Your task to perform on an android device: What's on my calendar tomorrow? Image 0: 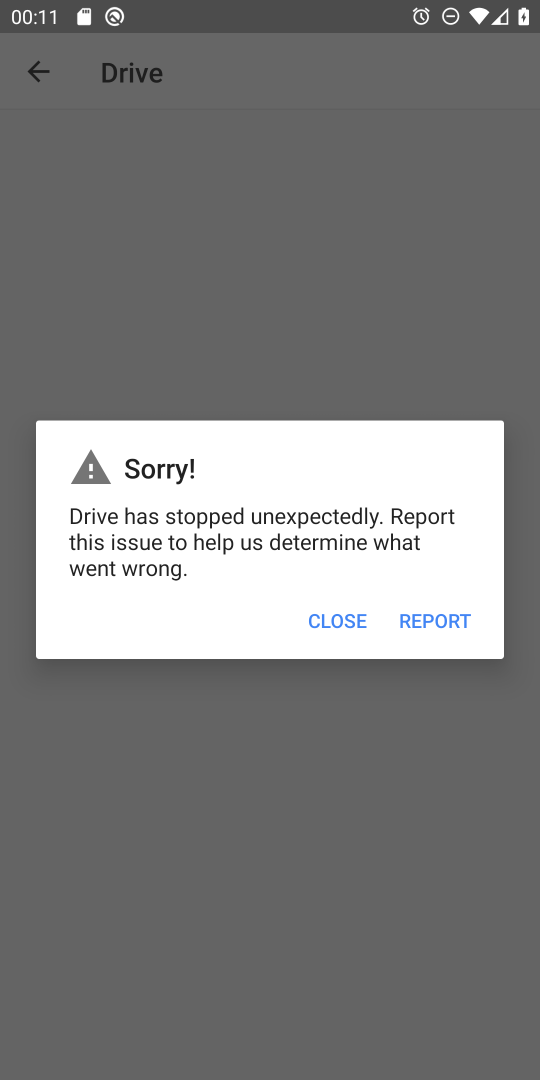
Step 0: press home button
Your task to perform on an android device: What's on my calendar tomorrow? Image 1: 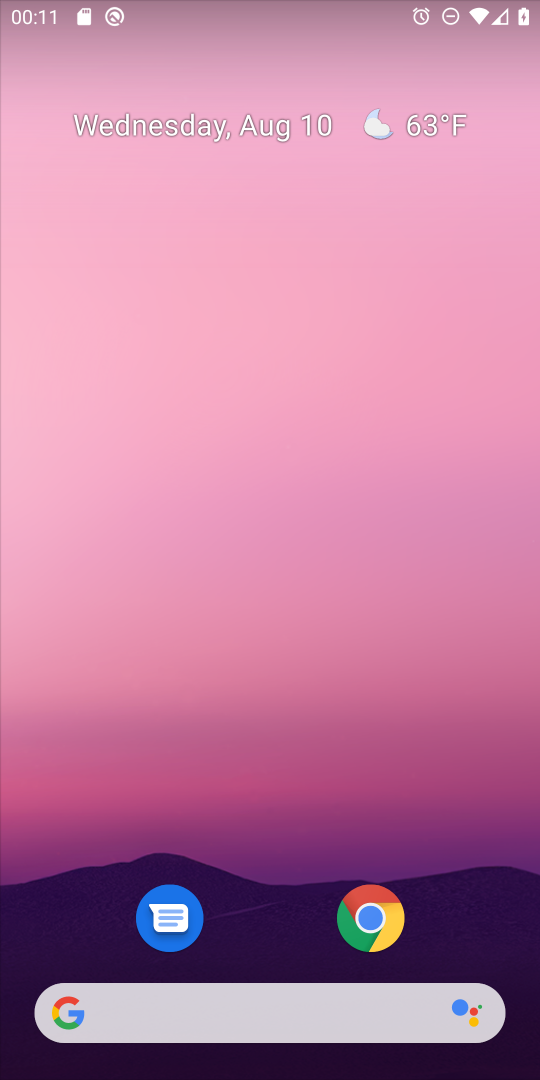
Step 1: drag from (296, 942) to (297, 274)
Your task to perform on an android device: What's on my calendar tomorrow? Image 2: 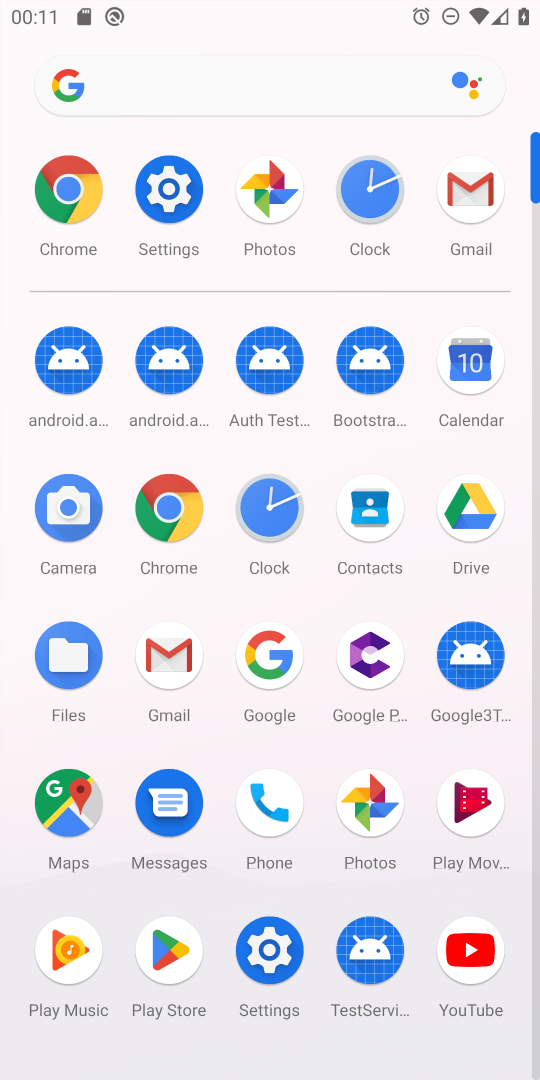
Step 2: click (459, 354)
Your task to perform on an android device: What's on my calendar tomorrow? Image 3: 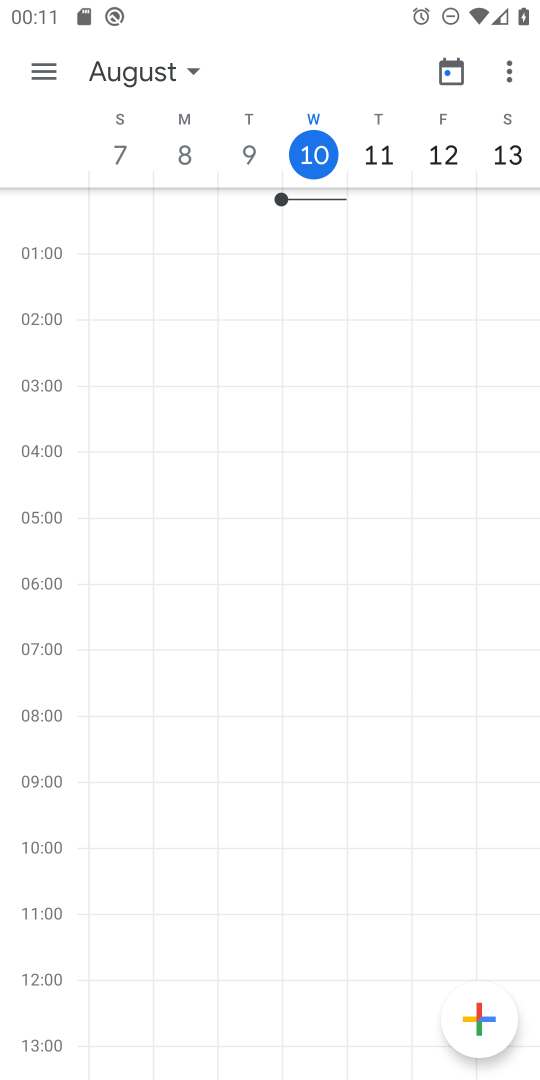
Step 3: click (387, 158)
Your task to perform on an android device: What's on my calendar tomorrow? Image 4: 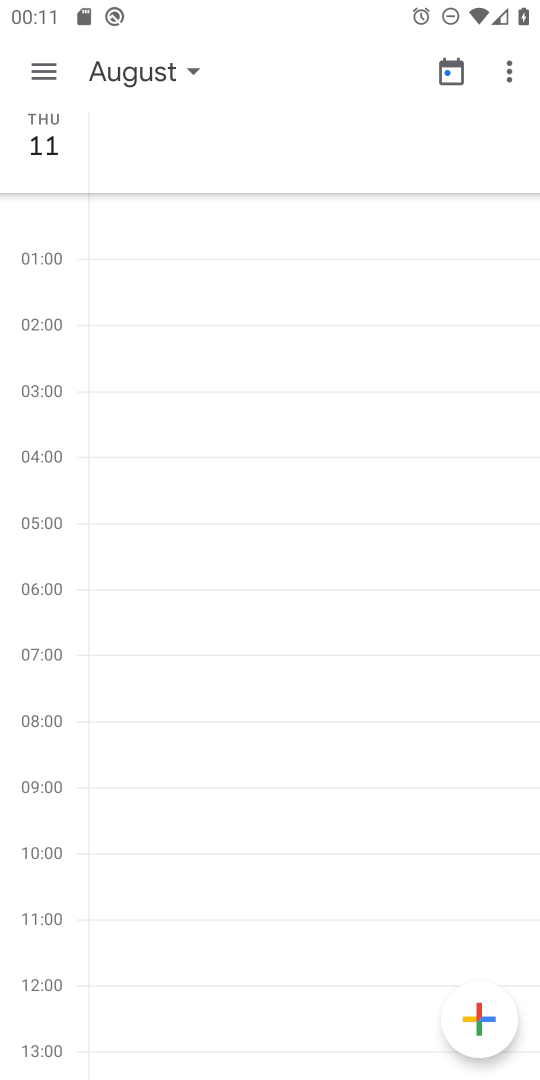
Step 4: task complete